Your task to perform on an android device: change keyboard looks Image 0: 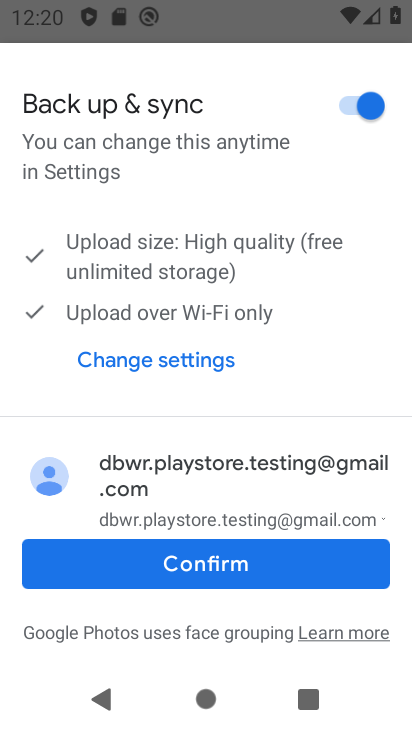
Step 0: press home button
Your task to perform on an android device: change keyboard looks Image 1: 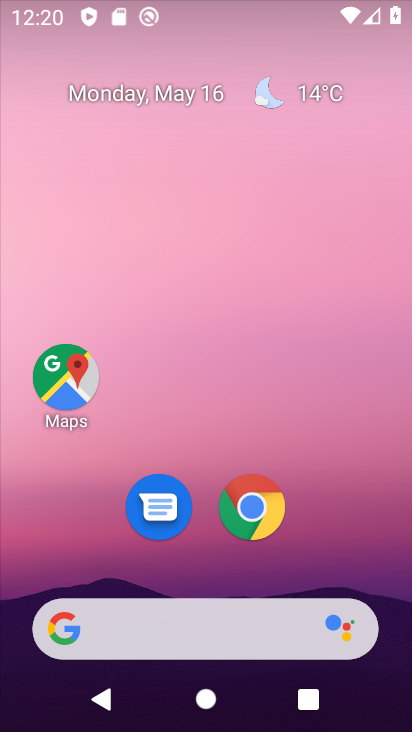
Step 1: drag from (280, 582) to (262, 209)
Your task to perform on an android device: change keyboard looks Image 2: 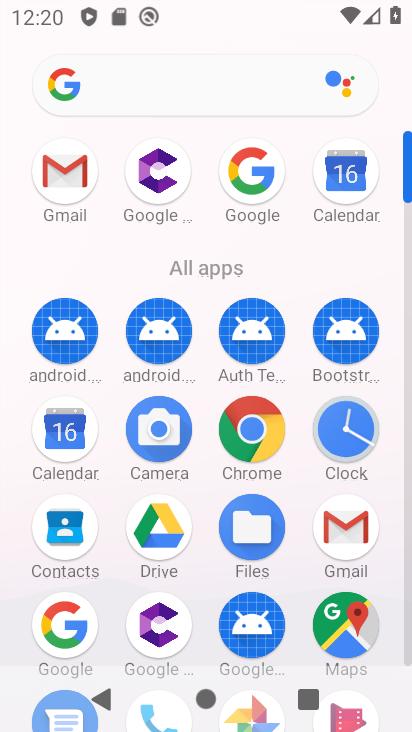
Step 2: drag from (215, 282) to (211, 19)
Your task to perform on an android device: change keyboard looks Image 3: 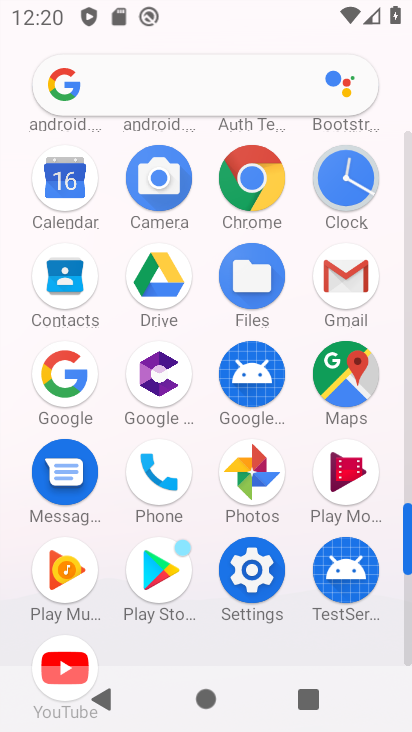
Step 3: click (263, 589)
Your task to perform on an android device: change keyboard looks Image 4: 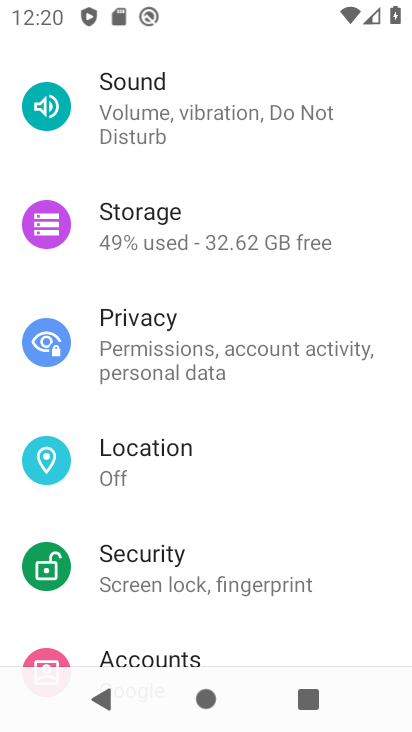
Step 4: drag from (160, 476) to (236, 140)
Your task to perform on an android device: change keyboard looks Image 5: 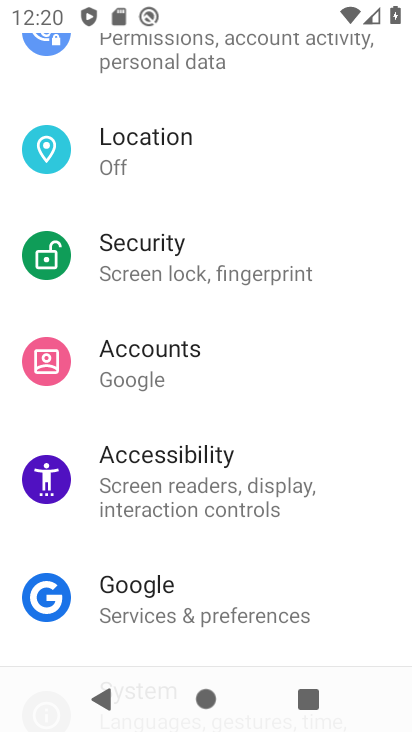
Step 5: drag from (271, 434) to (307, 199)
Your task to perform on an android device: change keyboard looks Image 6: 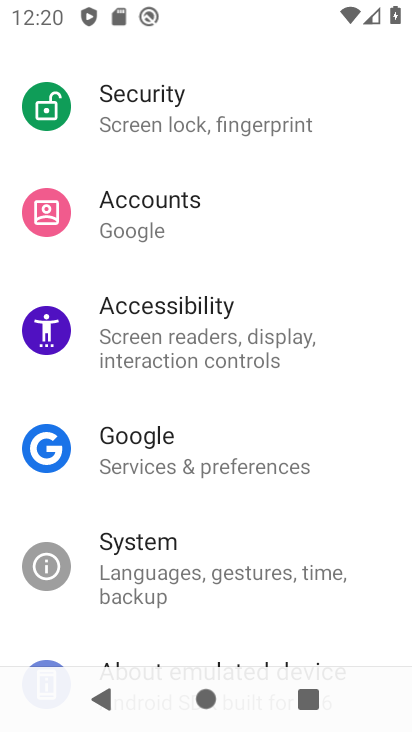
Step 6: drag from (269, 511) to (298, 267)
Your task to perform on an android device: change keyboard looks Image 7: 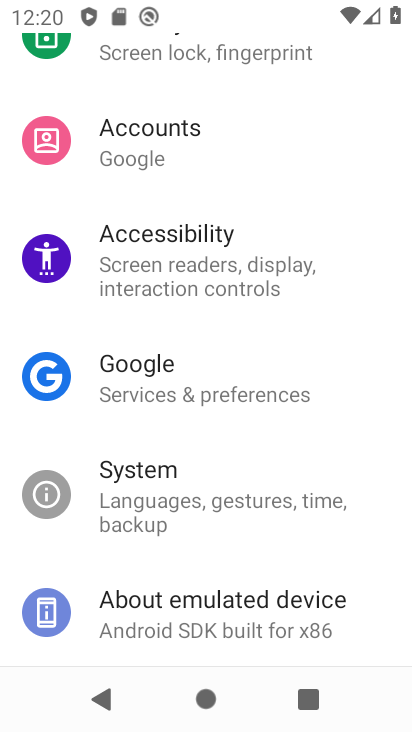
Step 7: drag from (256, 528) to (286, 286)
Your task to perform on an android device: change keyboard looks Image 8: 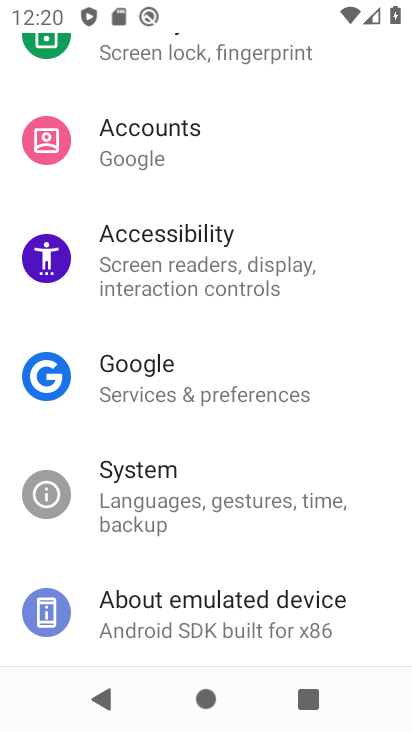
Step 8: click (242, 525)
Your task to perform on an android device: change keyboard looks Image 9: 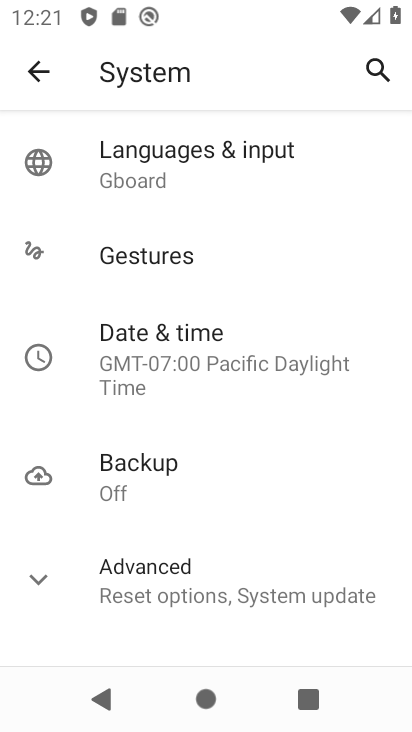
Step 9: click (252, 179)
Your task to perform on an android device: change keyboard looks Image 10: 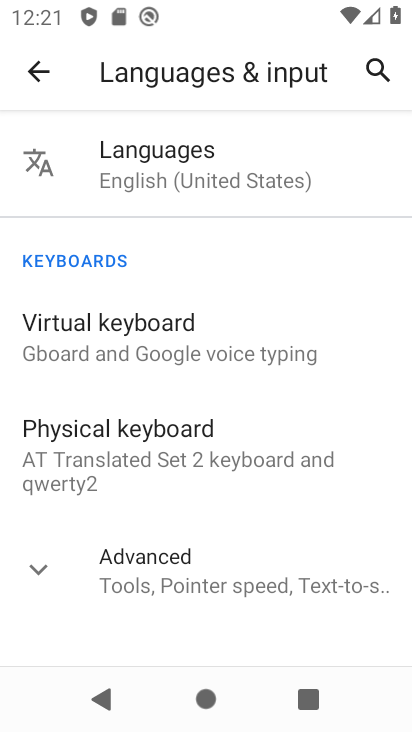
Step 10: drag from (269, 536) to (298, 284)
Your task to perform on an android device: change keyboard looks Image 11: 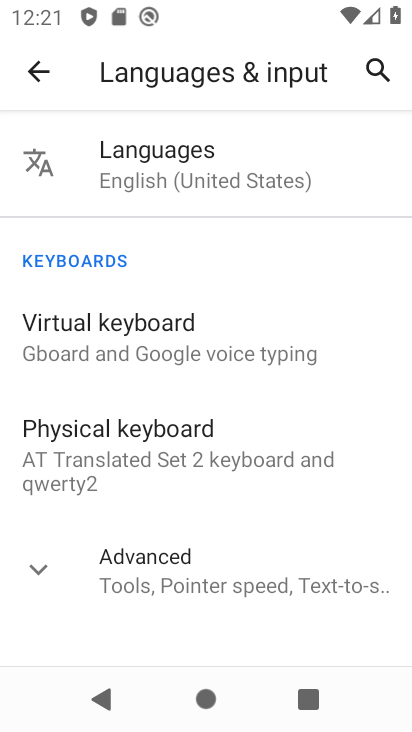
Step 11: click (224, 165)
Your task to perform on an android device: change keyboard looks Image 12: 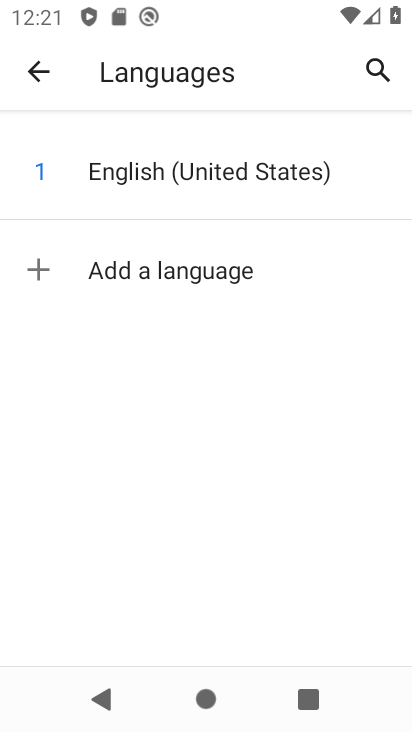
Step 12: click (215, 280)
Your task to perform on an android device: change keyboard looks Image 13: 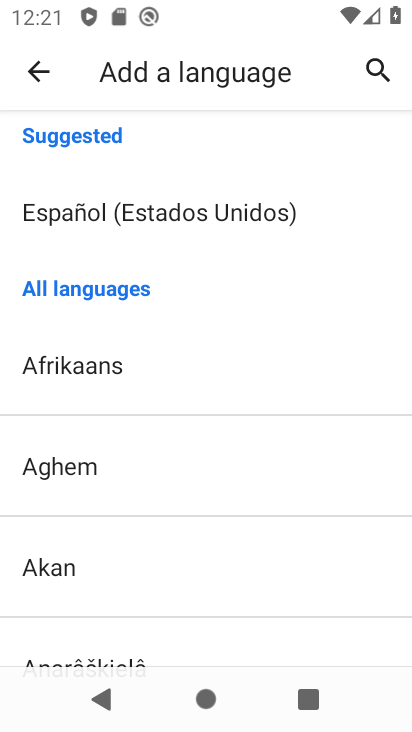
Step 13: click (101, 581)
Your task to perform on an android device: change keyboard looks Image 14: 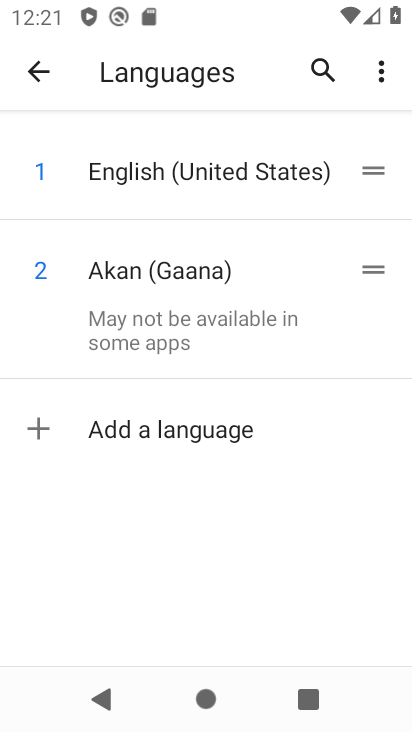
Step 14: task complete